Your task to perform on an android device: toggle pop-ups in chrome Image 0: 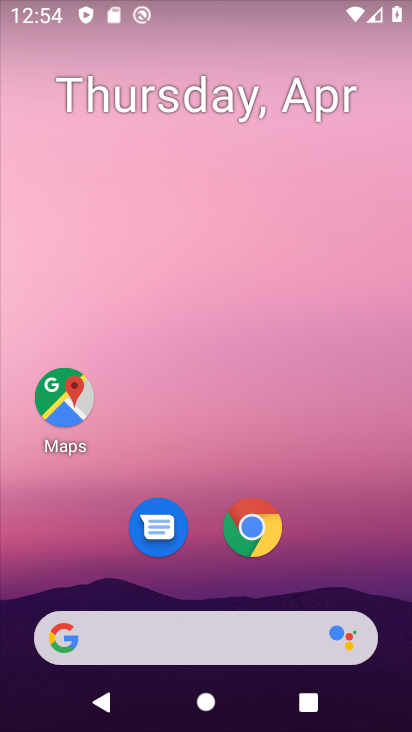
Step 0: click (251, 531)
Your task to perform on an android device: toggle pop-ups in chrome Image 1: 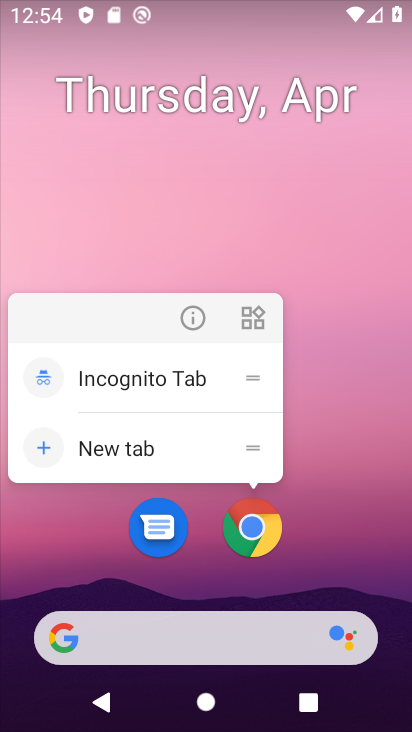
Step 1: click (251, 531)
Your task to perform on an android device: toggle pop-ups in chrome Image 2: 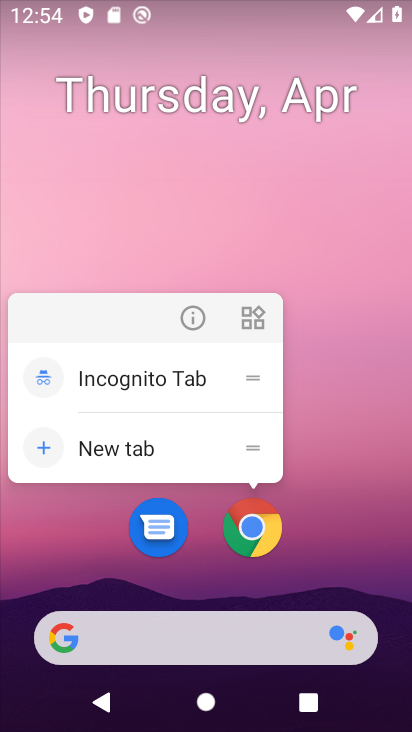
Step 2: click (251, 531)
Your task to perform on an android device: toggle pop-ups in chrome Image 3: 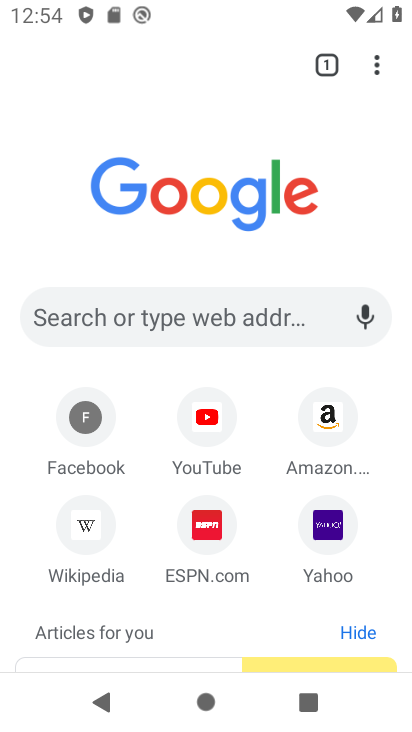
Step 3: click (376, 72)
Your task to perform on an android device: toggle pop-ups in chrome Image 4: 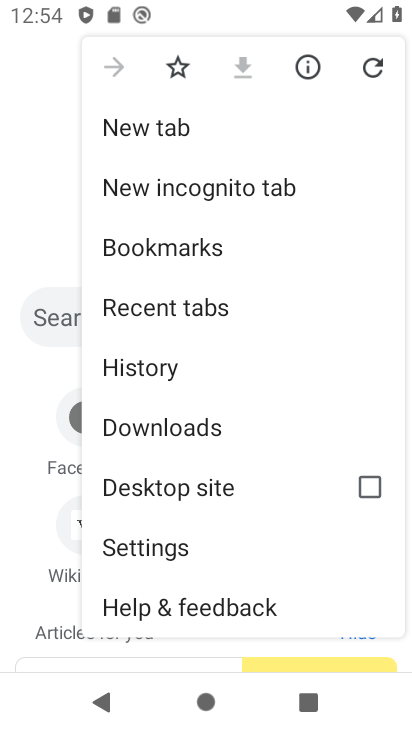
Step 4: click (136, 548)
Your task to perform on an android device: toggle pop-ups in chrome Image 5: 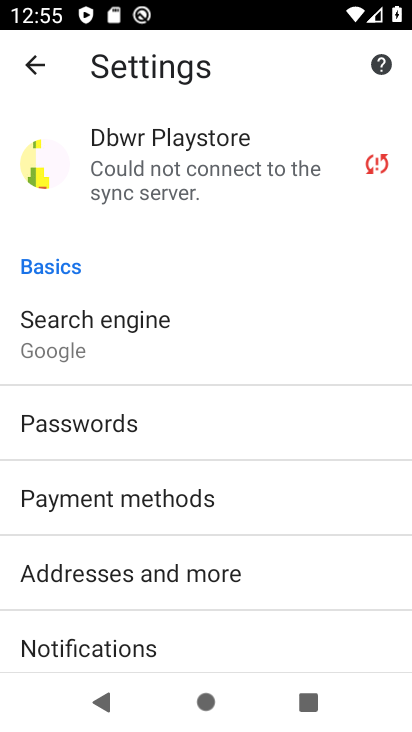
Step 5: drag from (150, 618) to (99, 85)
Your task to perform on an android device: toggle pop-ups in chrome Image 6: 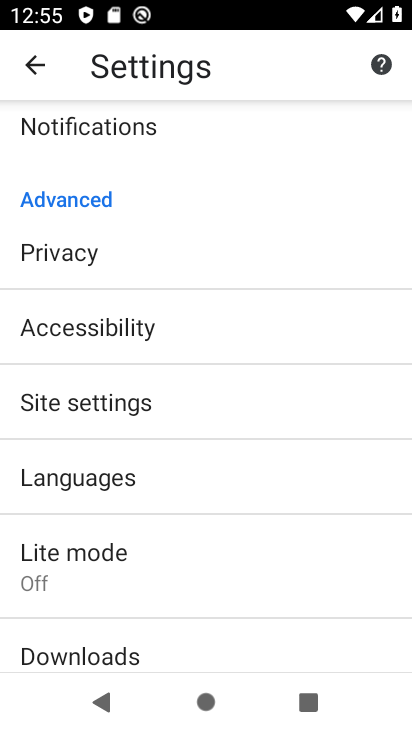
Step 6: click (105, 398)
Your task to perform on an android device: toggle pop-ups in chrome Image 7: 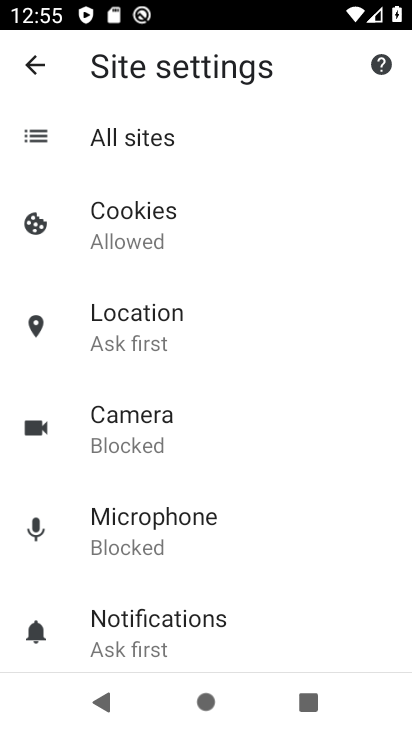
Step 7: drag from (231, 555) to (209, 311)
Your task to perform on an android device: toggle pop-ups in chrome Image 8: 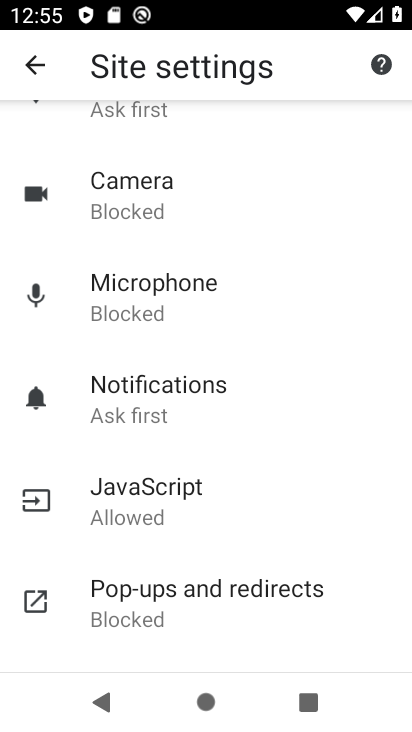
Step 8: click (128, 620)
Your task to perform on an android device: toggle pop-ups in chrome Image 9: 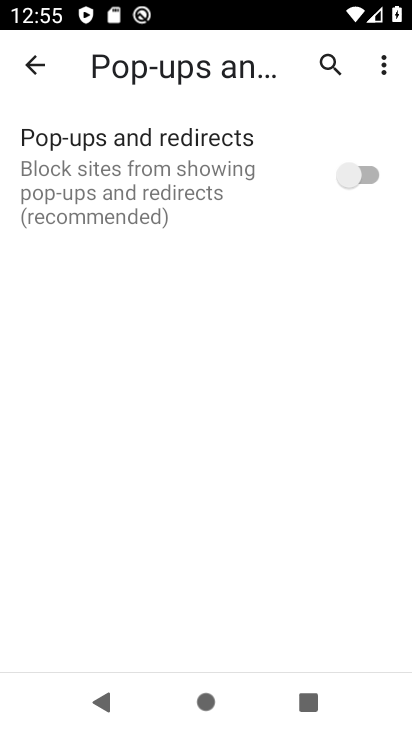
Step 9: click (364, 167)
Your task to perform on an android device: toggle pop-ups in chrome Image 10: 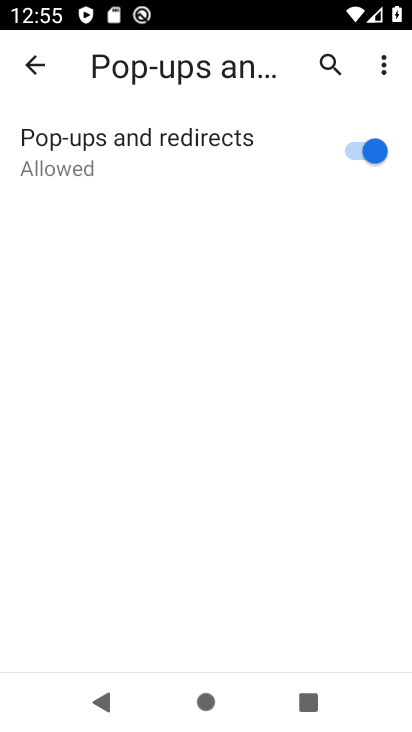
Step 10: task complete